Your task to perform on an android device: Open ESPN.com Image 0: 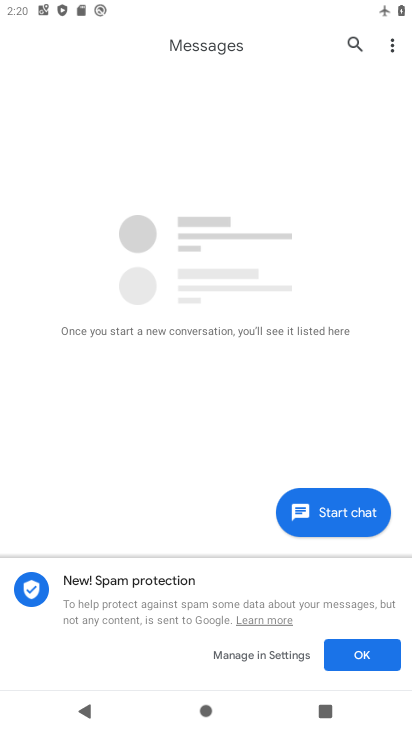
Step 0: press home button
Your task to perform on an android device: Open ESPN.com Image 1: 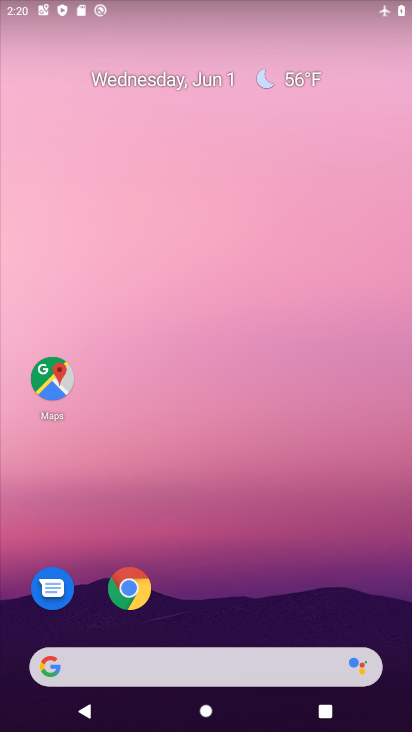
Step 1: click (129, 600)
Your task to perform on an android device: Open ESPN.com Image 2: 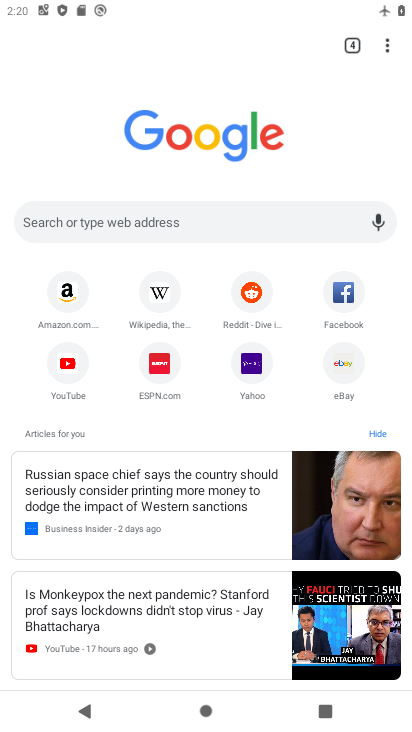
Step 2: click (163, 374)
Your task to perform on an android device: Open ESPN.com Image 3: 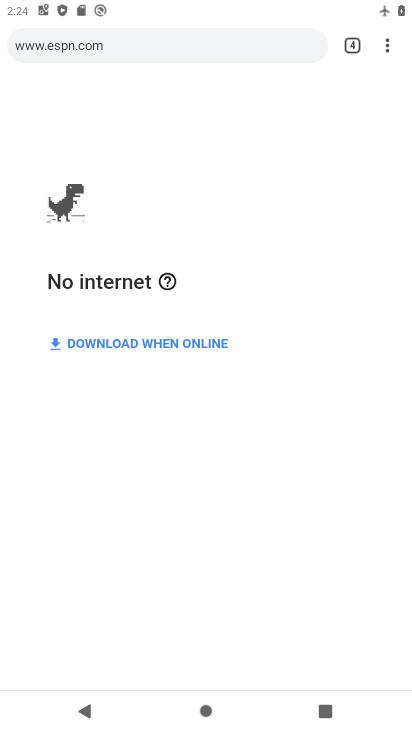
Step 3: task complete